Your task to perform on an android device: Go to Amazon Image 0: 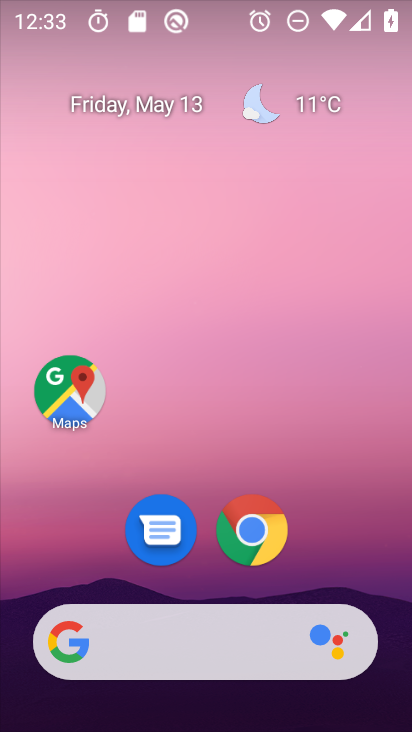
Step 0: press home button
Your task to perform on an android device: Go to Amazon Image 1: 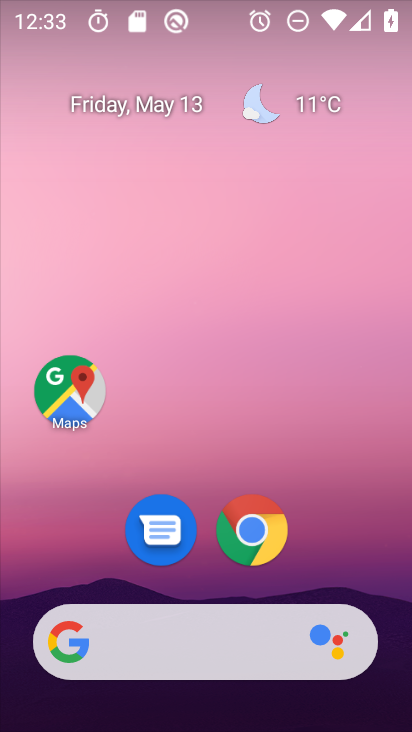
Step 1: drag from (198, 586) to (287, 110)
Your task to perform on an android device: Go to Amazon Image 2: 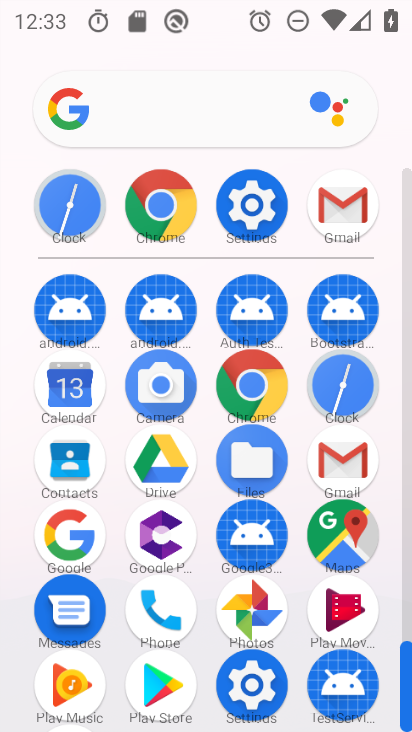
Step 2: click (171, 214)
Your task to perform on an android device: Go to Amazon Image 3: 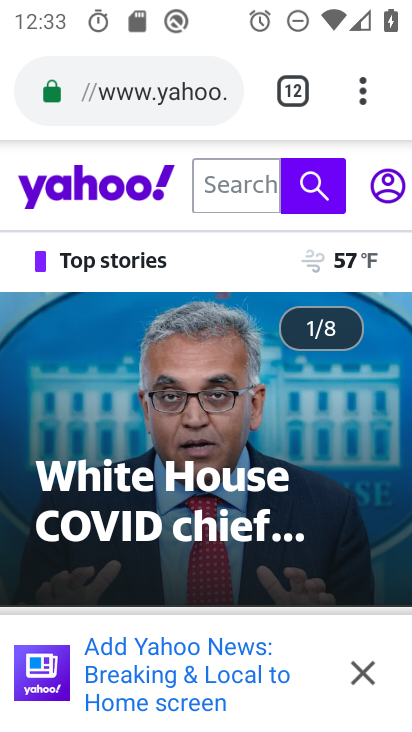
Step 3: drag from (359, 104) to (260, 174)
Your task to perform on an android device: Go to Amazon Image 4: 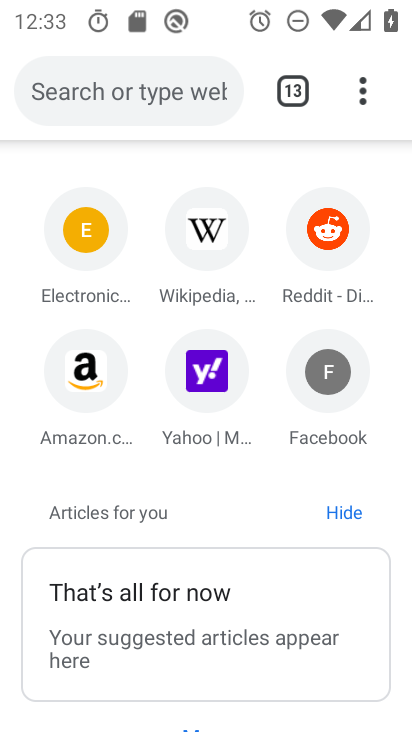
Step 4: click (92, 382)
Your task to perform on an android device: Go to Amazon Image 5: 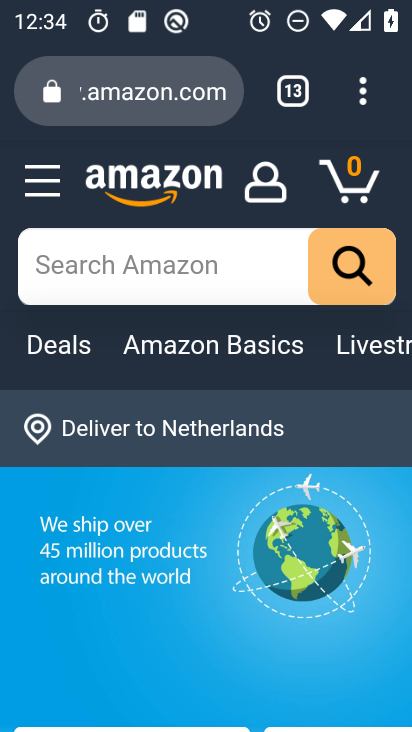
Step 5: task complete